Your task to perform on an android device: turn on the 12-hour format for clock Image 0: 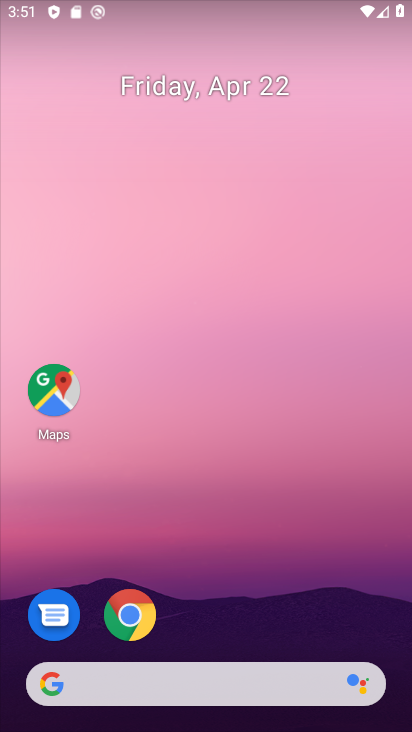
Step 0: drag from (262, 624) to (277, 170)
Your task to perform on an android device: turn on the 12-hour format for clock Image 1: 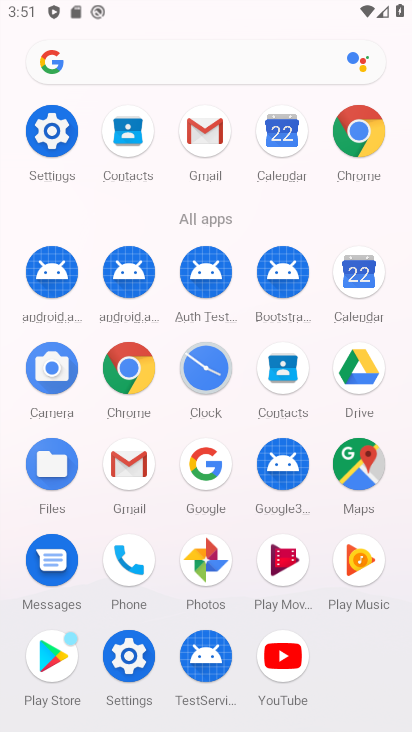
Step 1: click (195, 379)
Your task to perform on an android device: turn on the 12-hour format for clock Image 2: 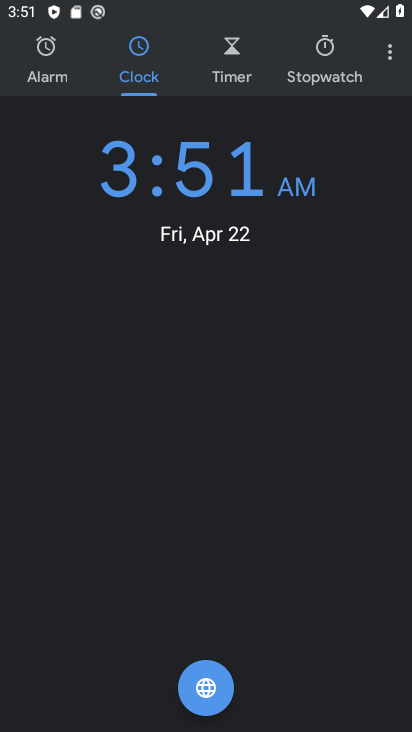
Step 2: click (388, 64)
Your task to perform on an android device: turn on the 12-hour format for clock Image 3: 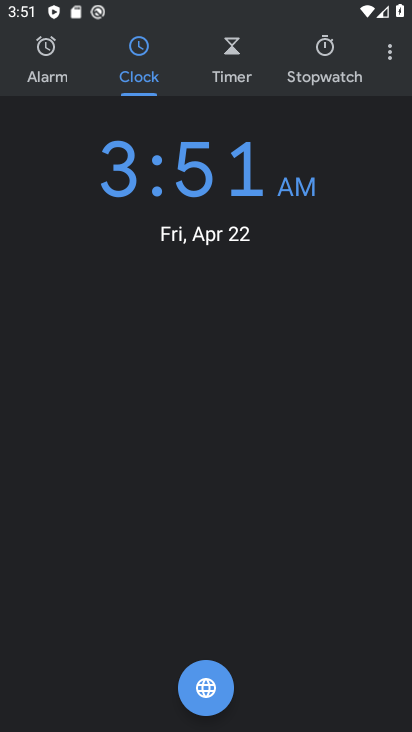
Step 3: click (388, 61)
Your task to perform on an android device: turn on the 12-hour format for clock Image 4: 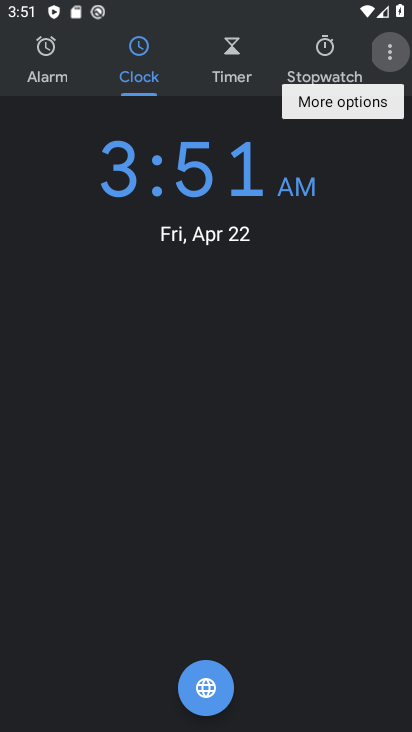
Step 4: click (392, 47)
Your task to perform on an android device: turn on the 12-hour format for clock Image 5: 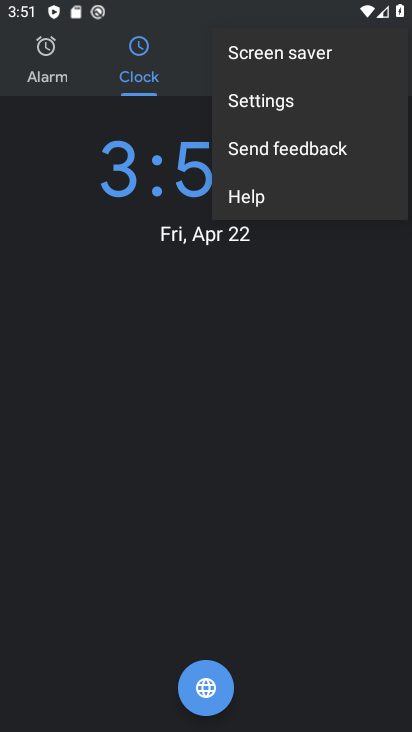
Step 5: click (299, 104)
Your task to perform on an android device: turn on the 12-hour format for clock Image 6: 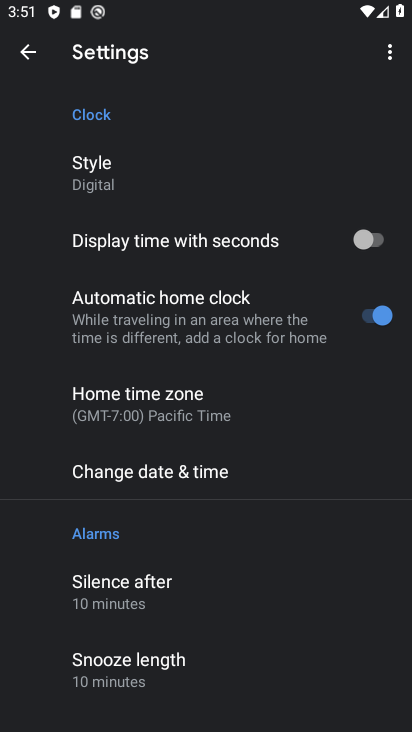
Step 6: click (198, 466)
Your task to perform on an android device: turn on the 12-hour format for clock Image 7: 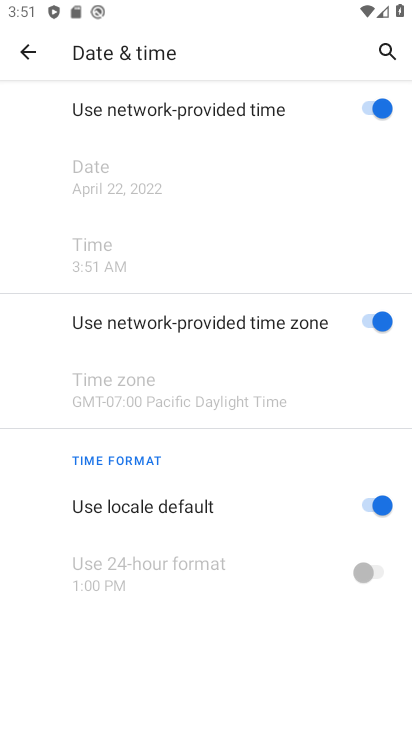
Step 7: task complete